Your task to perform on an android device: see tabs open on other devices in the chrome app Image 0: 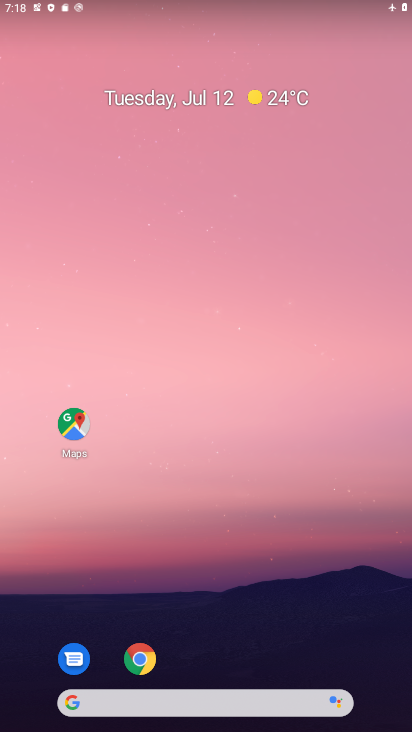
Step 0: drag from (345, 634) to (226, 33)
Your task to perform on an android device: see tabs open on other devices in the chrome app Image 1: 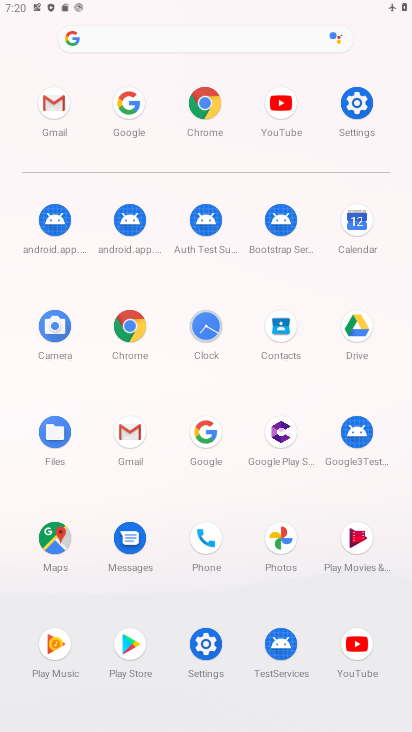
Step 1: click (186, 105)
Your task to perform on an android device: see tabs open on other devices in the chrome app Image 2: 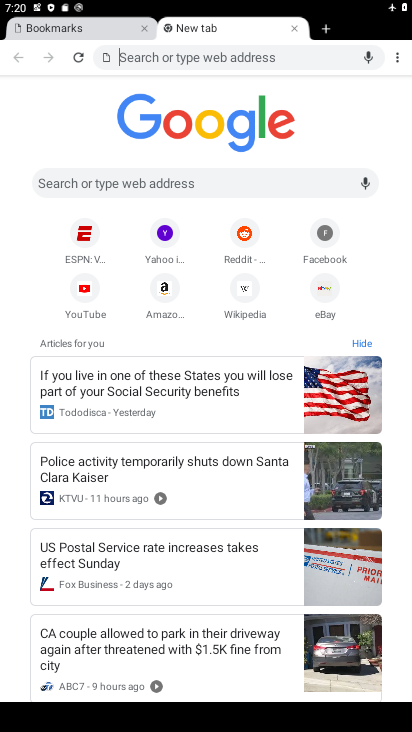
Step 2: task complete